Your task to perform on an android device: turn on bluetooth scan Image 0: 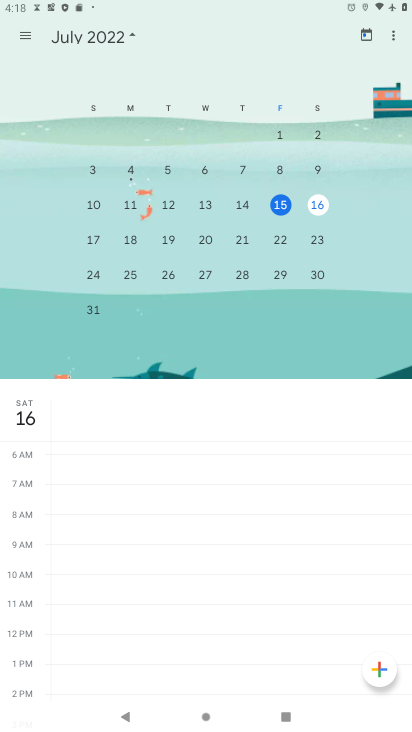
Step 0: press back button
Your task to perform on an android device: turn on bluetooth scan Image 1: 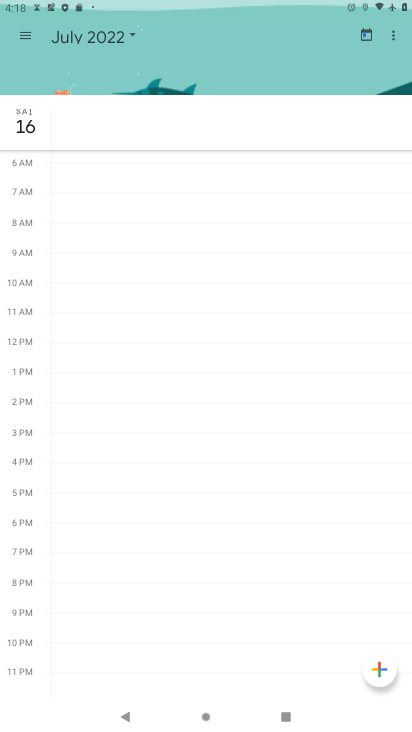
Step 1: press home button
Your task to perform on an android device: turn on bluetooth scan Image 2: 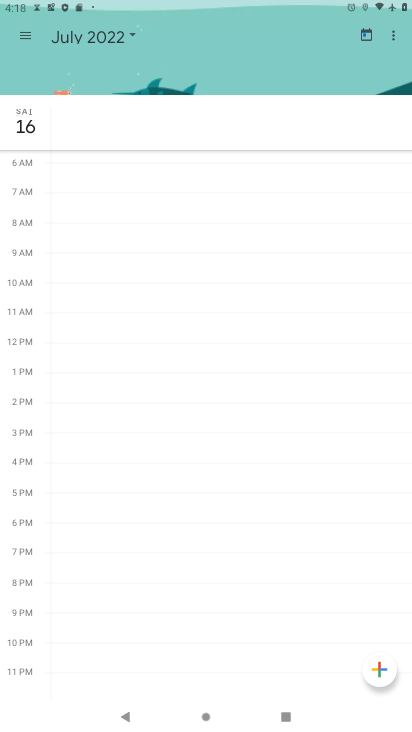
Step 2: press home button
Your task to perform on an android device: turn on bluetooth scan Image 3: 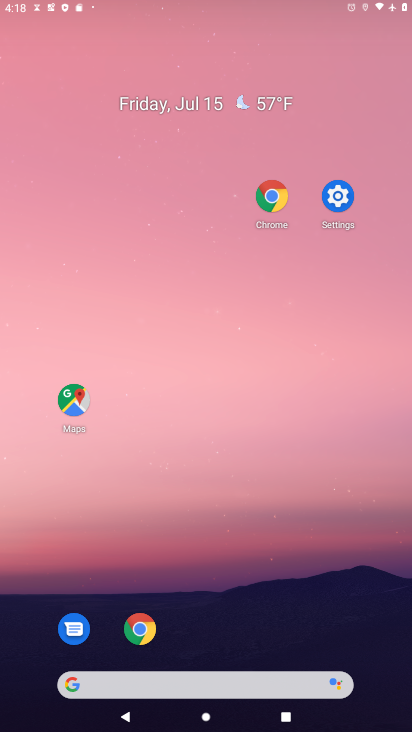
Step 3: press home button
Your task to perform on an android device: turn on bluetooth scan Image 4: 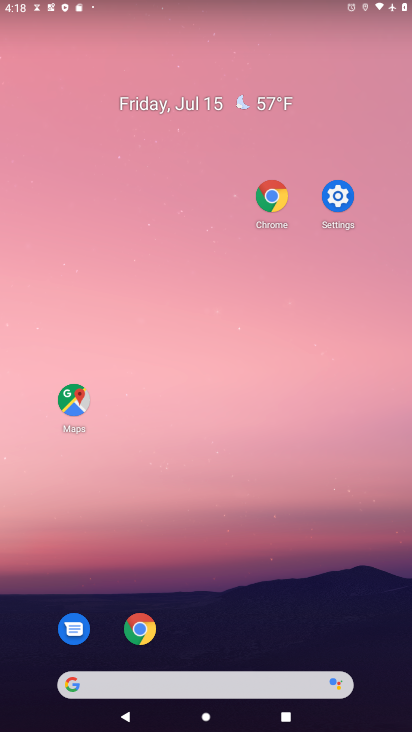
Step 4: press home button
Your task to perform on an android device: turn on bluetooth scan Image 5: 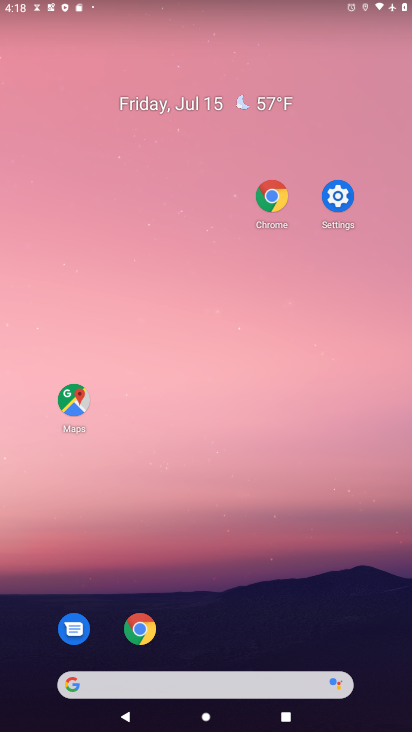
Step 5: drag from (268, 656) to (267, 70)
Your task to perform on an android device: turn on bluetooth scan Image 6: 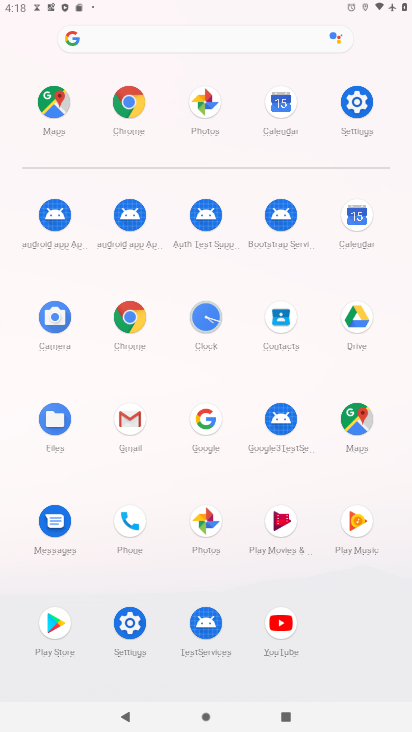
Step 6: click (359, 108)
Your task to perform on an android device: turn on bluetooth scan Image 7: 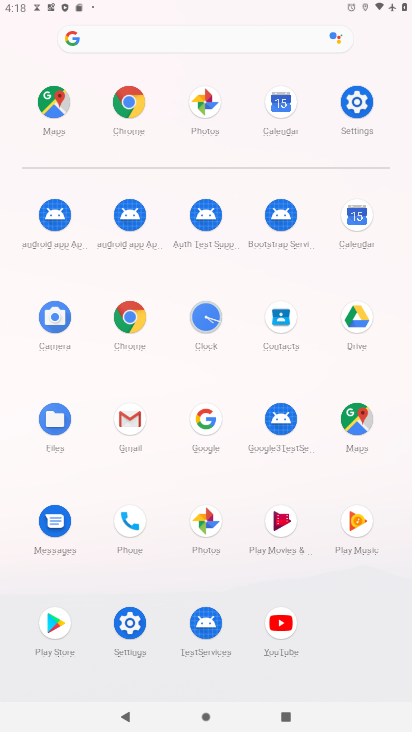
Step 7: click (359, 108)
Your task to perform on an android device: turn on bluetooth scan Image 8: 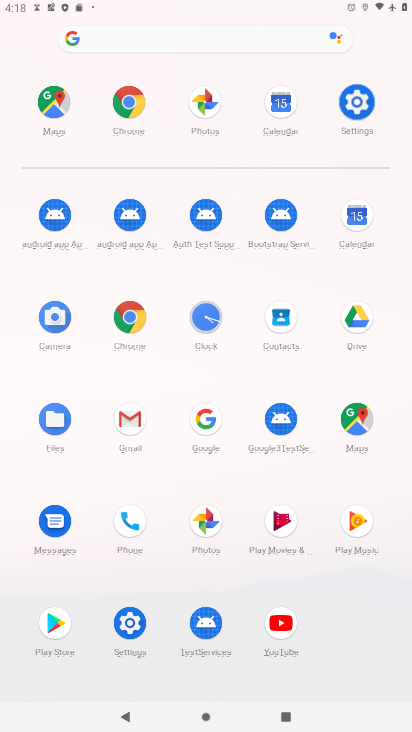
Step 8: click (360, 109)
Your task to perform on an android device: turn on bluetooth scan Image 9: 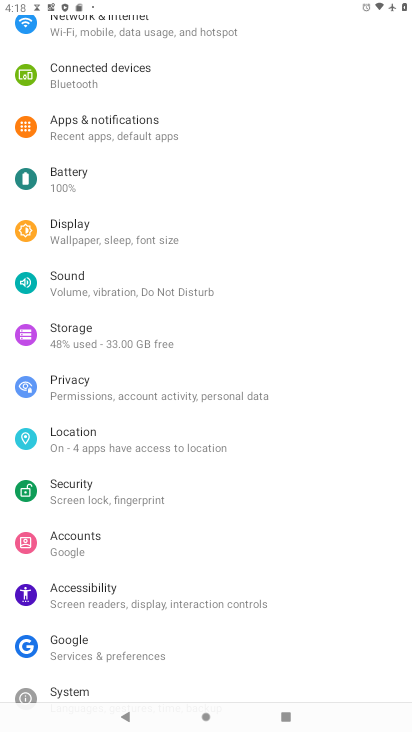
Step 9: click (74, 439)
Your task to perform on an android device: turn on bluetooth scan Image 10: 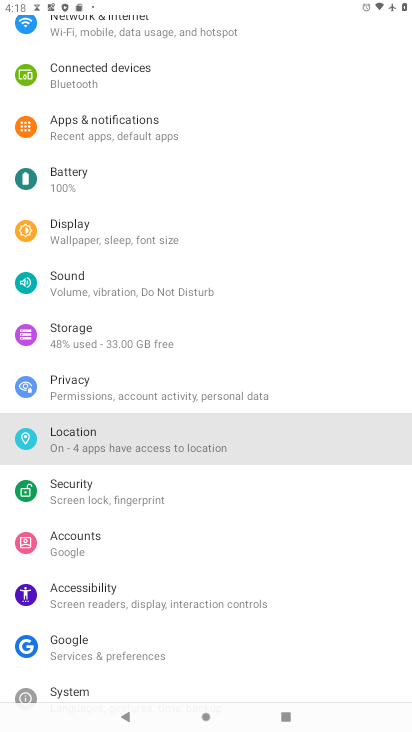
Step 10: click (74, 439)
Your task to perform on an android device: turn on bluetooth scan Image 11: 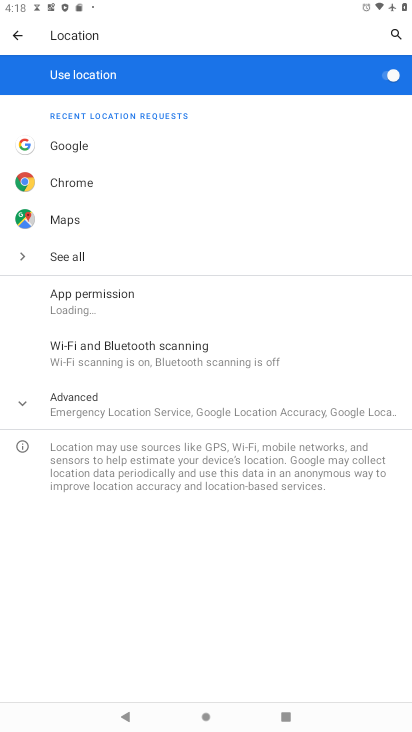
Step 11: click (107, 344)
Your task to perform on an android device: turn on bluetooth scan Image 12: 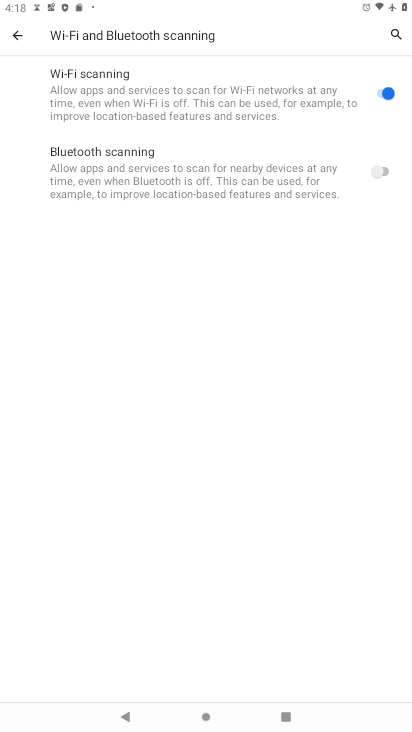
Step 12: click (377, 171)
Your task to perform on an android device: turn on bluetooth scan Image 13: 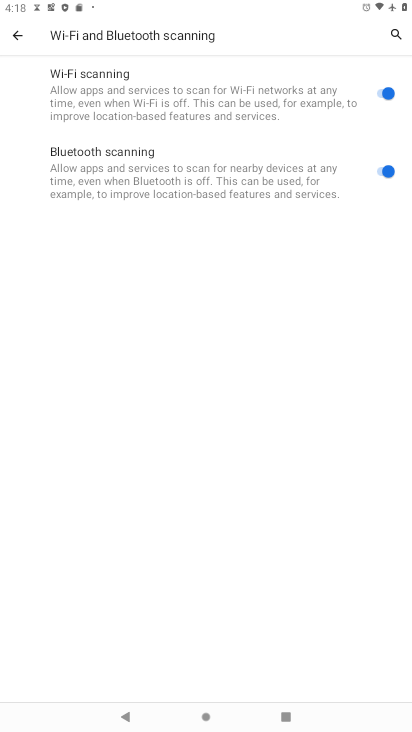
Step 13: task complete